Your task to perform on an android device: change the upload size in google photos Image 0: 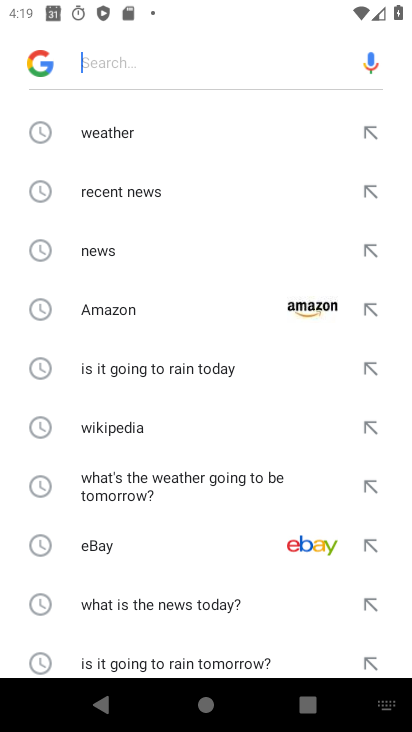
Step 0: press home button
Your task to perform on an android device: change the upload size in google photos Image 1: 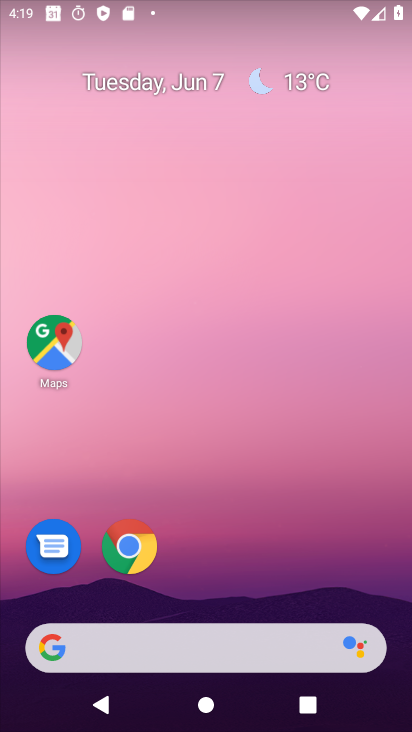
Step 1: drag from (179, 584) to (219, 119)
Your task to perform on an android device: change the upload size in google photos Image 2: 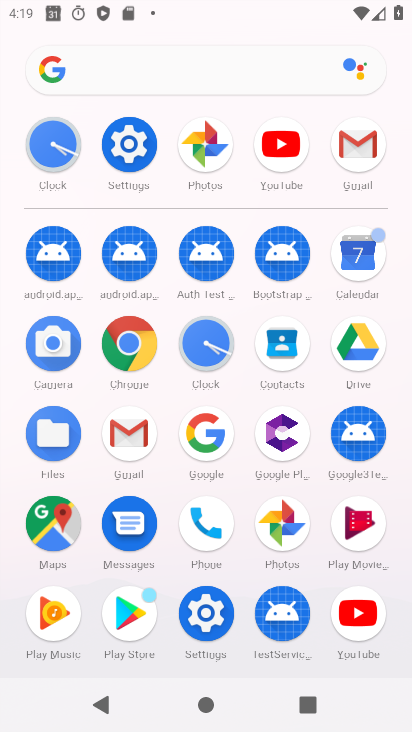
Step 2: click (191, 159)
Your task to perform on an android device: change the upload size in google photos Image 3: 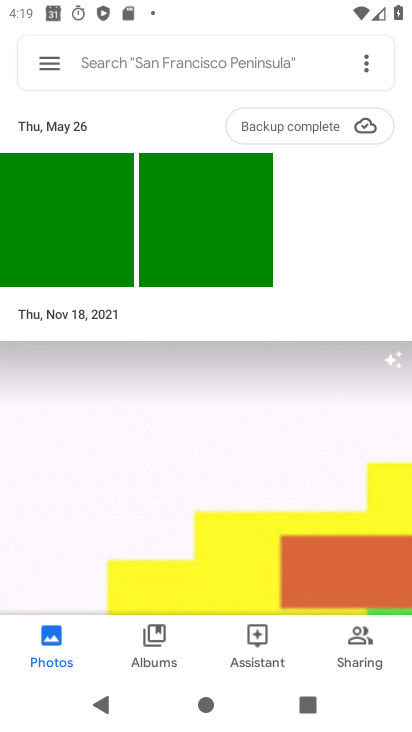
Step 3: click (60, 58)
Your task to perform on an android device: change the upload size in google photos Image 4: 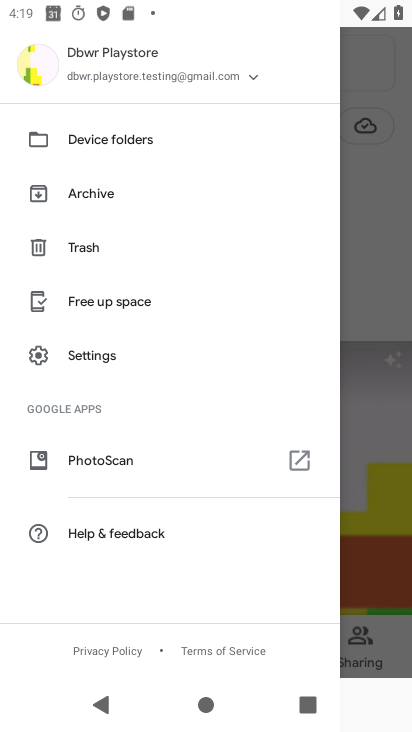
Step 4: click (79, 375)
Your task to perform on an android device: change the upload size in google photos Image 5: 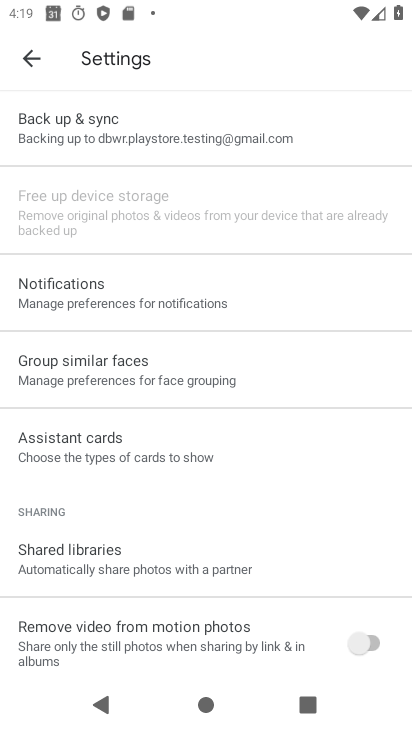
Step 5: click (173, 123)
Your task to perform on an android device: change the upload size in google photos Image 6: 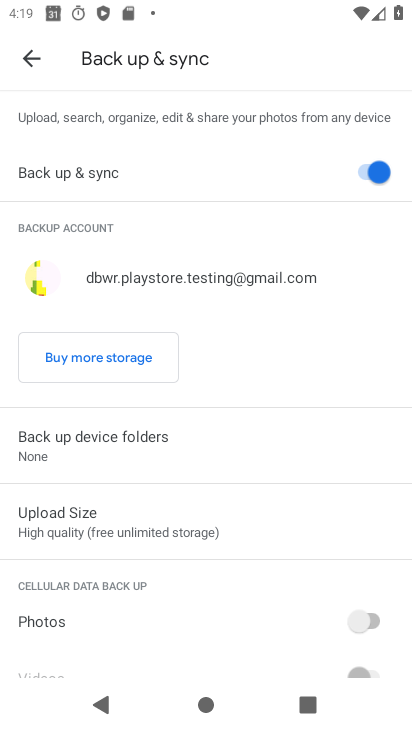
Step 6: click (96, 523)
Your task to perform on an android device: change the upload size in google photos Image 7: 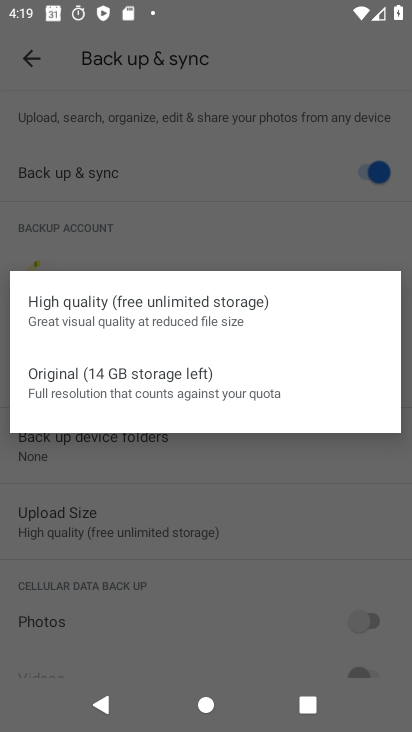
Step 7: click (98, 389)
Your task to perform on an android device: change the upload size in google photos Image 8: 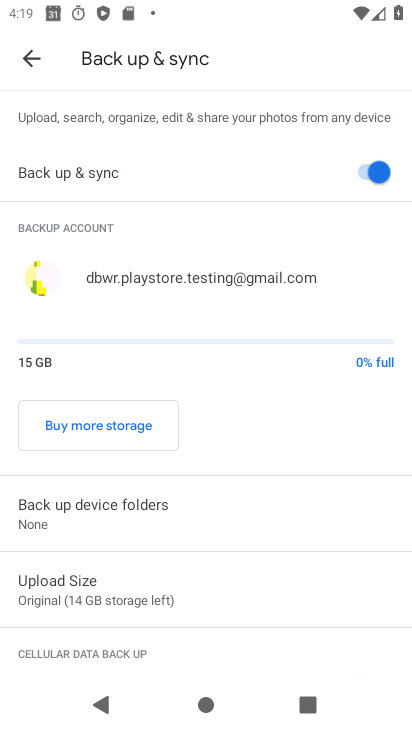
Step 8: task complete